Your task to perform on an android device: Show me popular games on the Play Store Image 0: 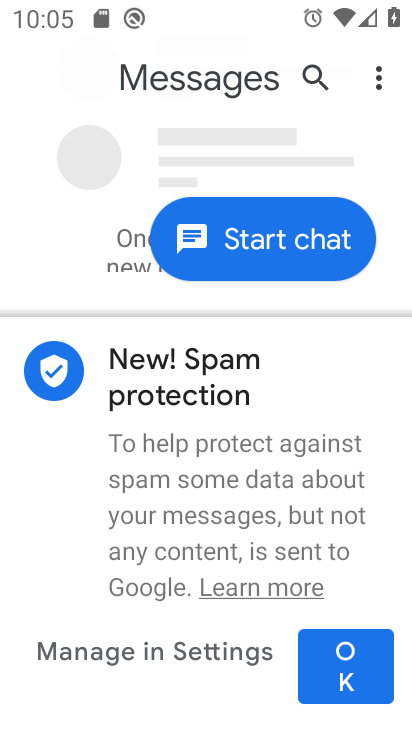
Step 0: press home button
Your task to perform on an android device: Show me popular games on the Play Store Image 1: 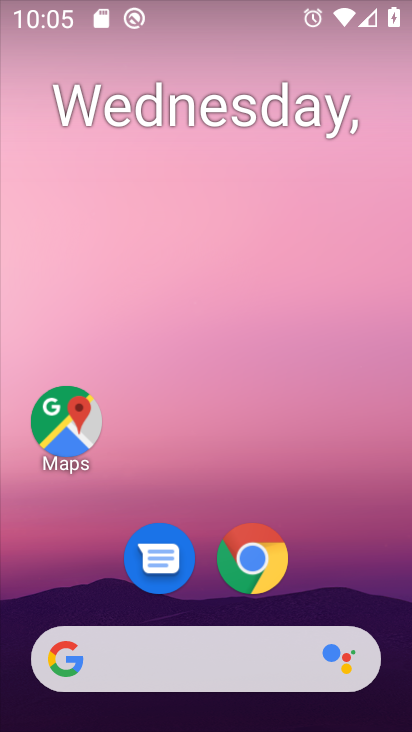
Step 1: drag from (390, 569) to (390, 108)
Your task to perform on an android device: Show me popular games on the Play Store Image 2: 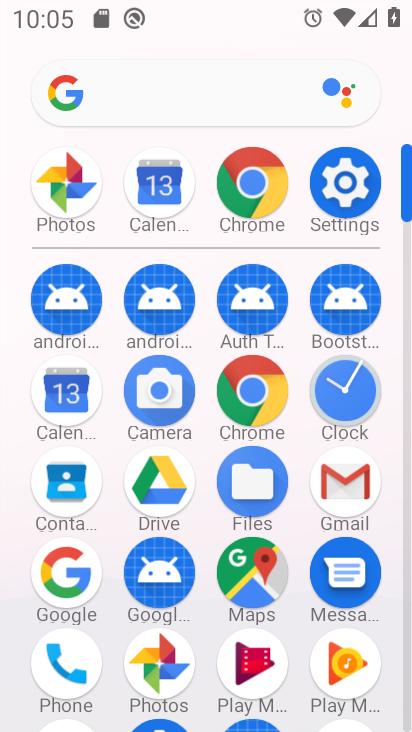
Step 2: drag from (385, 540) to (387, 280)
Your task to perform on an android device: Show me popular games on the Play Store Image 3: 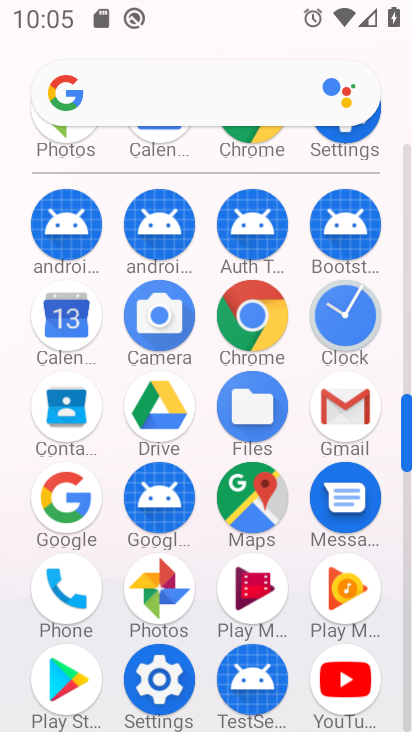
Step 3: click (66, 671)
Your task to perform on an android device: Show me popular games on the Play Store Image 4: 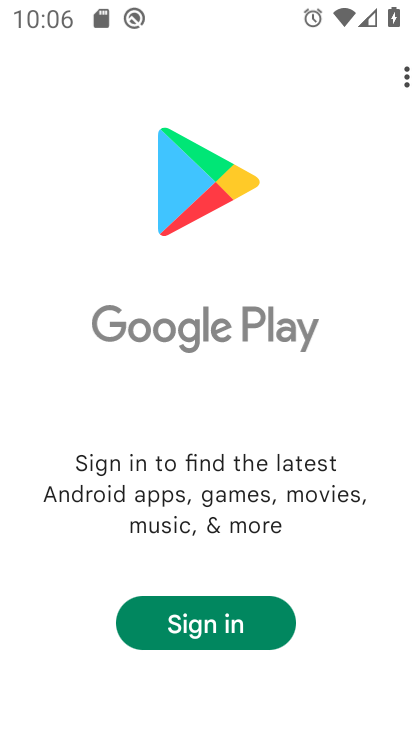
Step 4: task complete